Your task to perform on an android device: snooze an email in the gmail app Image 0: 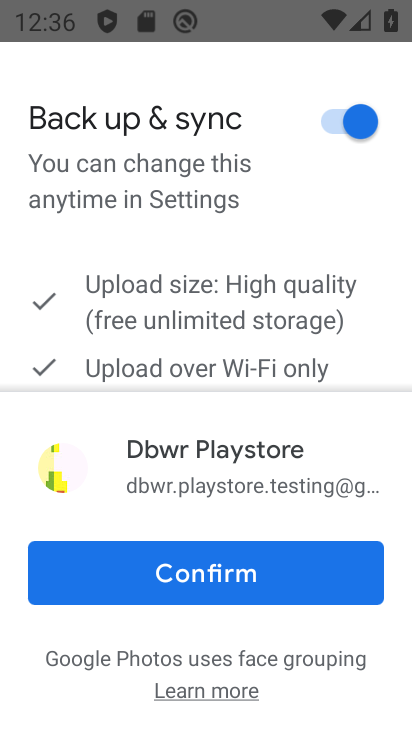
Step 0: press home button
Your task to perform on an android device: snooze an email in the gmail app Image 1: 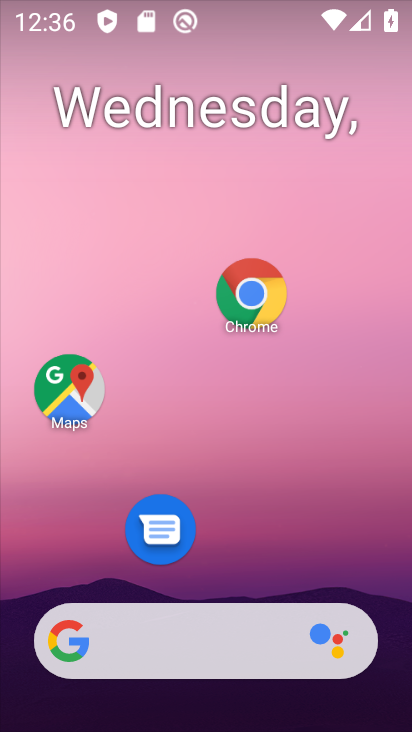
Step 1: drag from (242, 627) to (323, 270)
Your task to perform on an android device: snooze an email in the gmail app Image 2: 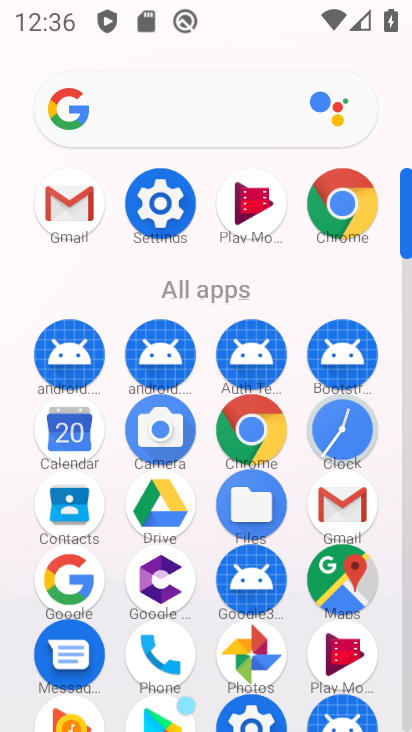
Step 2: click (361, 520)
Your task to perform on an android device: snooze an email in the gmail app Image 3: 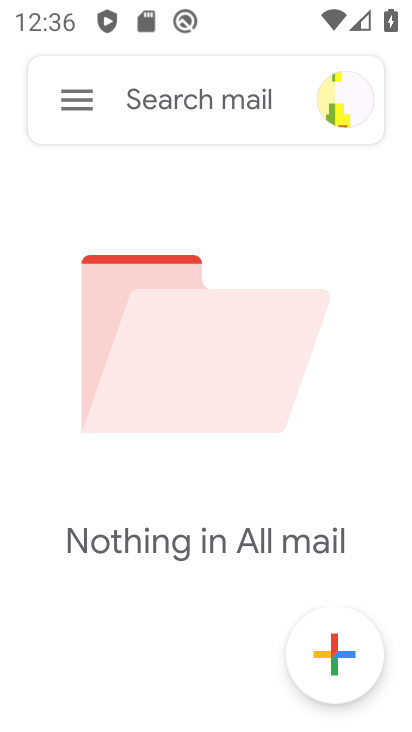
Step 3: click (95, 106)
Your task to perform on an android device: snooze an email in the gmail app Image 4: 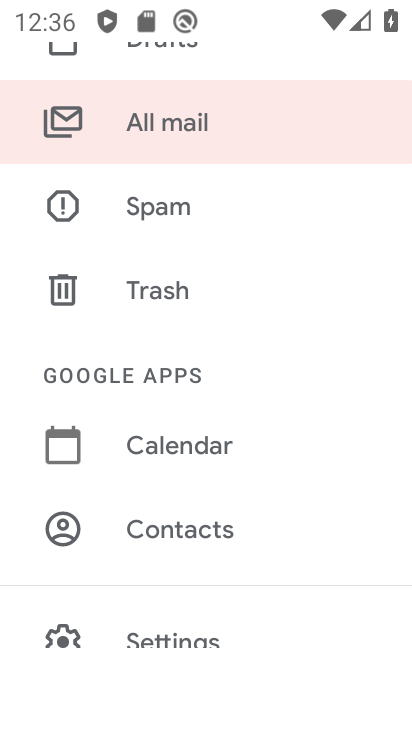
Step 4: drag from (266, 303) to (230, 690)
Your task to perform on an android device: snooze an email in the gmail app Image 5: 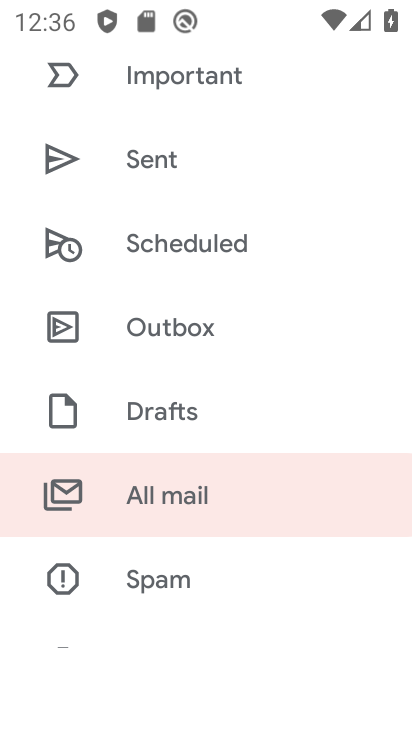
Step 5: click (255, 506)
Your task to perform on an android device: snooze an email in the gmail app Image 6: 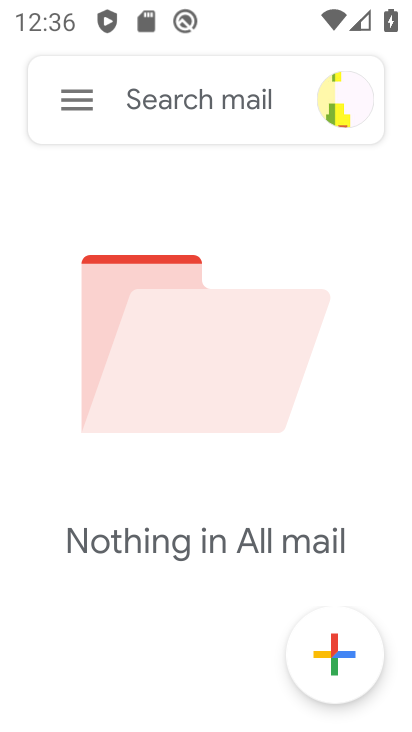
Step 6: task complete